Your task to perform on an android device: Go to Maps Image 0: 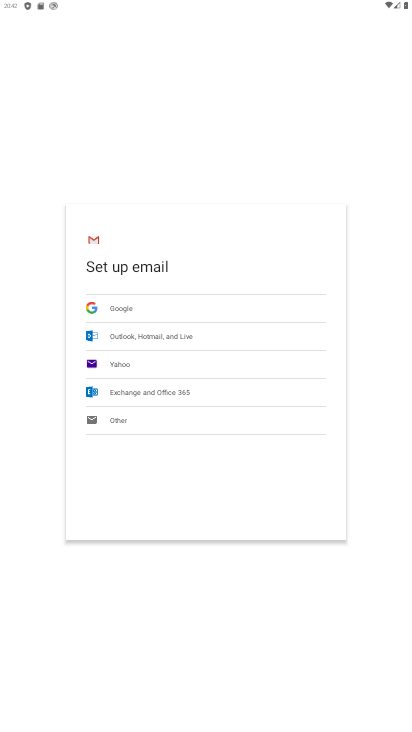
Step 0: press home button
Your task to perform on an android device: Go to Maps Image 1: 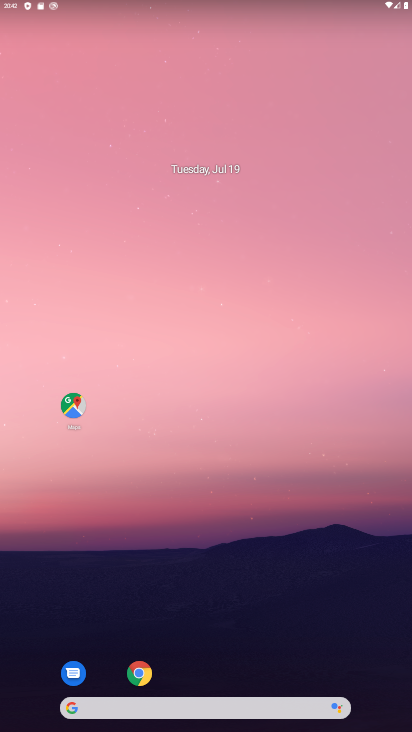
Step 1: click (70, 397)
Your task to perform on an android device: Go to Maps Image 2: 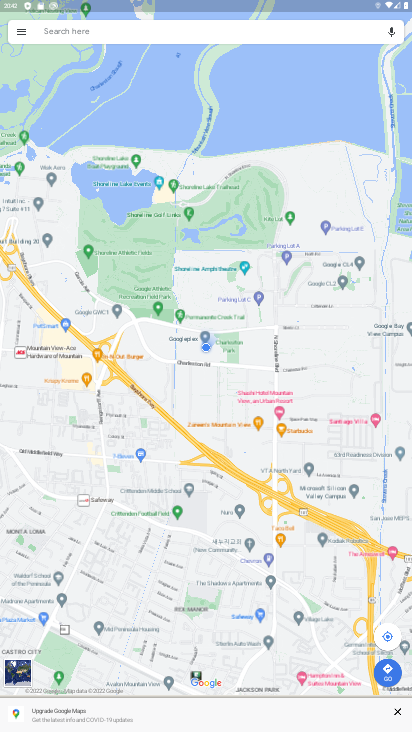
Step 2: task complete